Your task to perform on an android device: set default search engine in the chrome app Image 0: 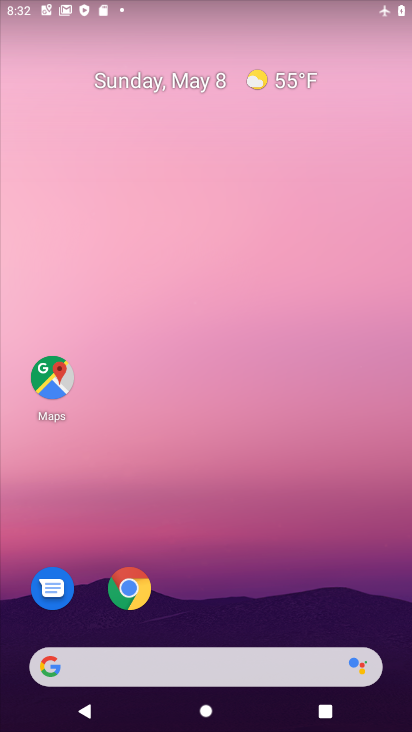
Step 0: drag from (294, 615) to (238, 80)
Your task to perform on an android device: set default search engine in the chrome app Image 1: 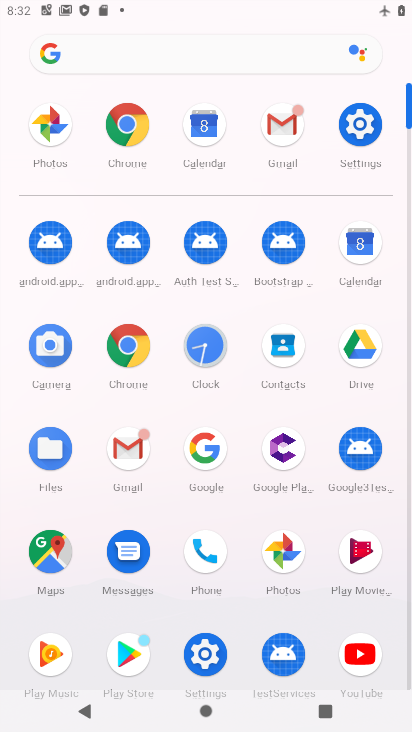
Step 1: click (133, 132)
Your task to perform on an android device: set default search engine in the chrome app Image 2: 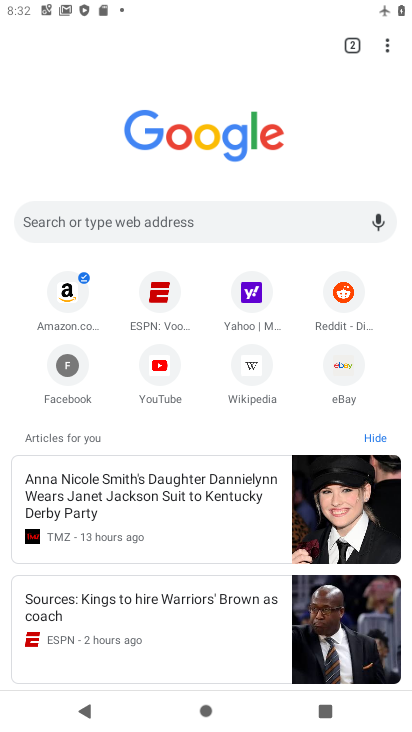
Step 2: click (385, 53)
Your task to perform on an android device: set default search engine in the chrome app Image 3: 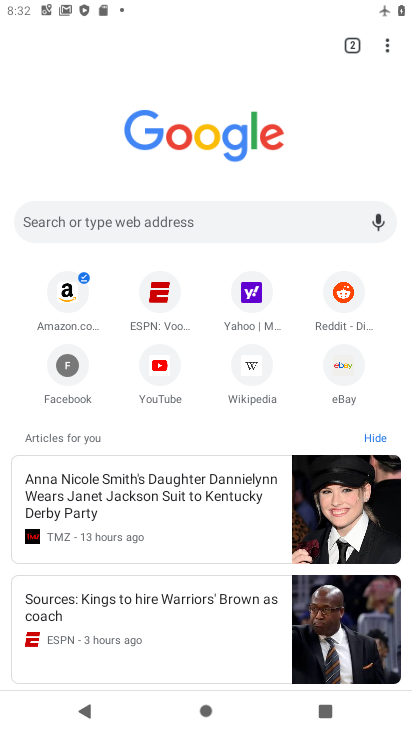
Step 3: click (386, 53)
Your task to perform on an android device: set default search engine in the chrome app Image 4: 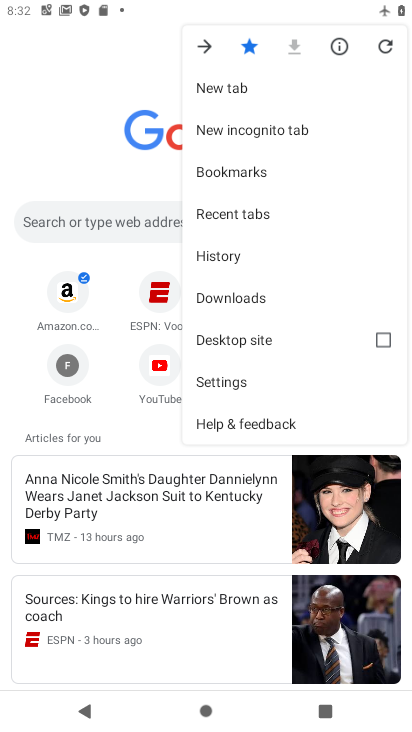
Step 4: click (276, 393)
Your task to perform on an android device: set default search engine in the chrome app Image 5: 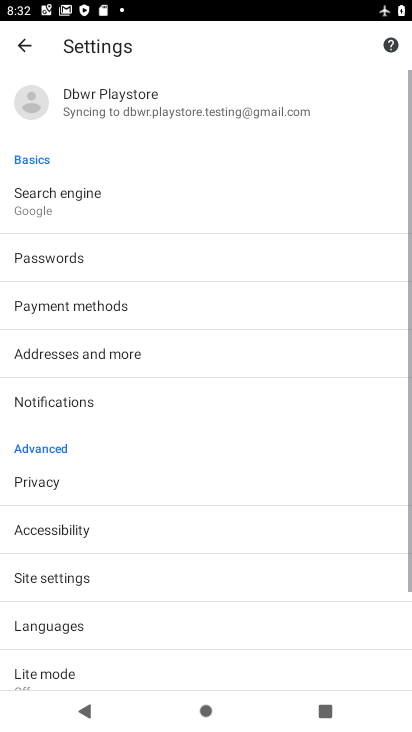
Step 5: click (63, 210)
Your task to perform on an android device: set default search engine in the chrome app Image 6: 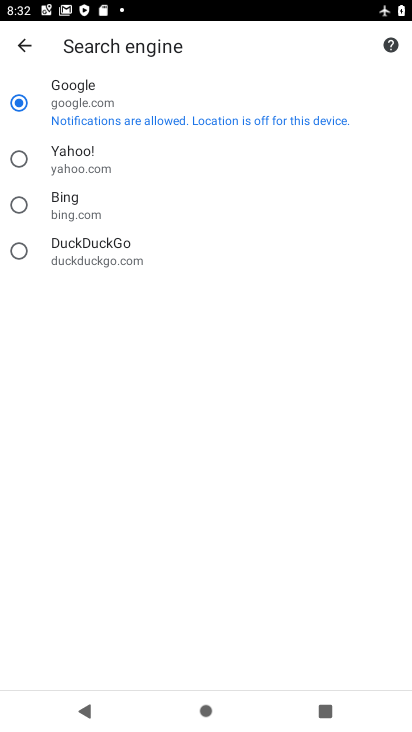
Step 6: click (63, 210)
Your task to perform on an android device: set default search engine in the chrome app Image 7: 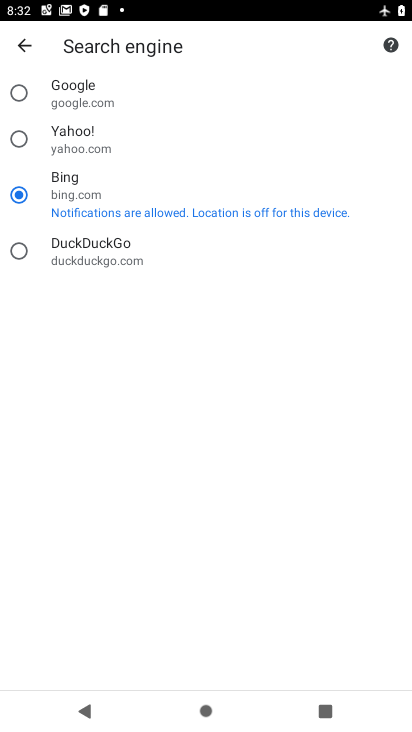
Step 7: task complete